Your task to perform on an android device: turn off notifications in google photos Image 0: 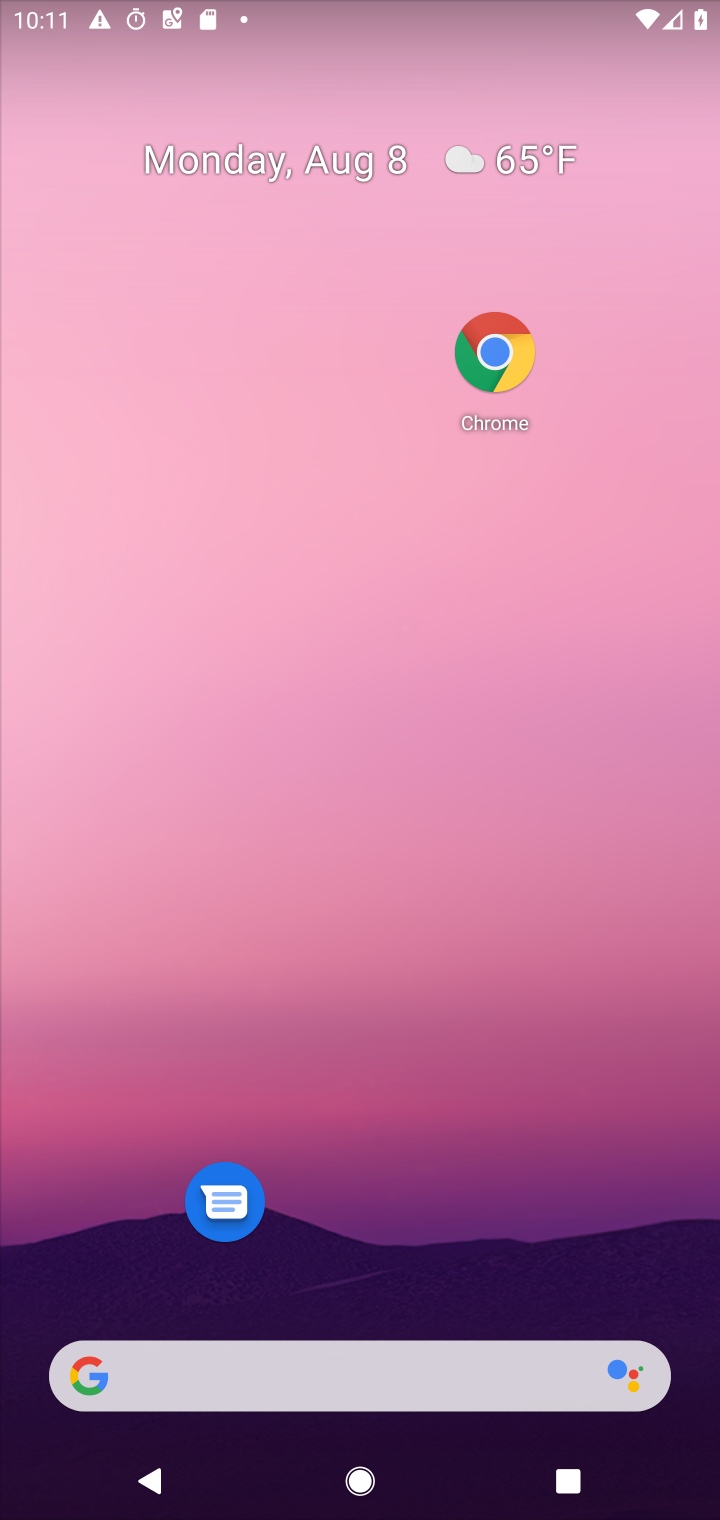
Step 0: drag from (357, 1254) to (718, 966)
Your task to perform on an android device: turn off notifications in google photos Image 1: 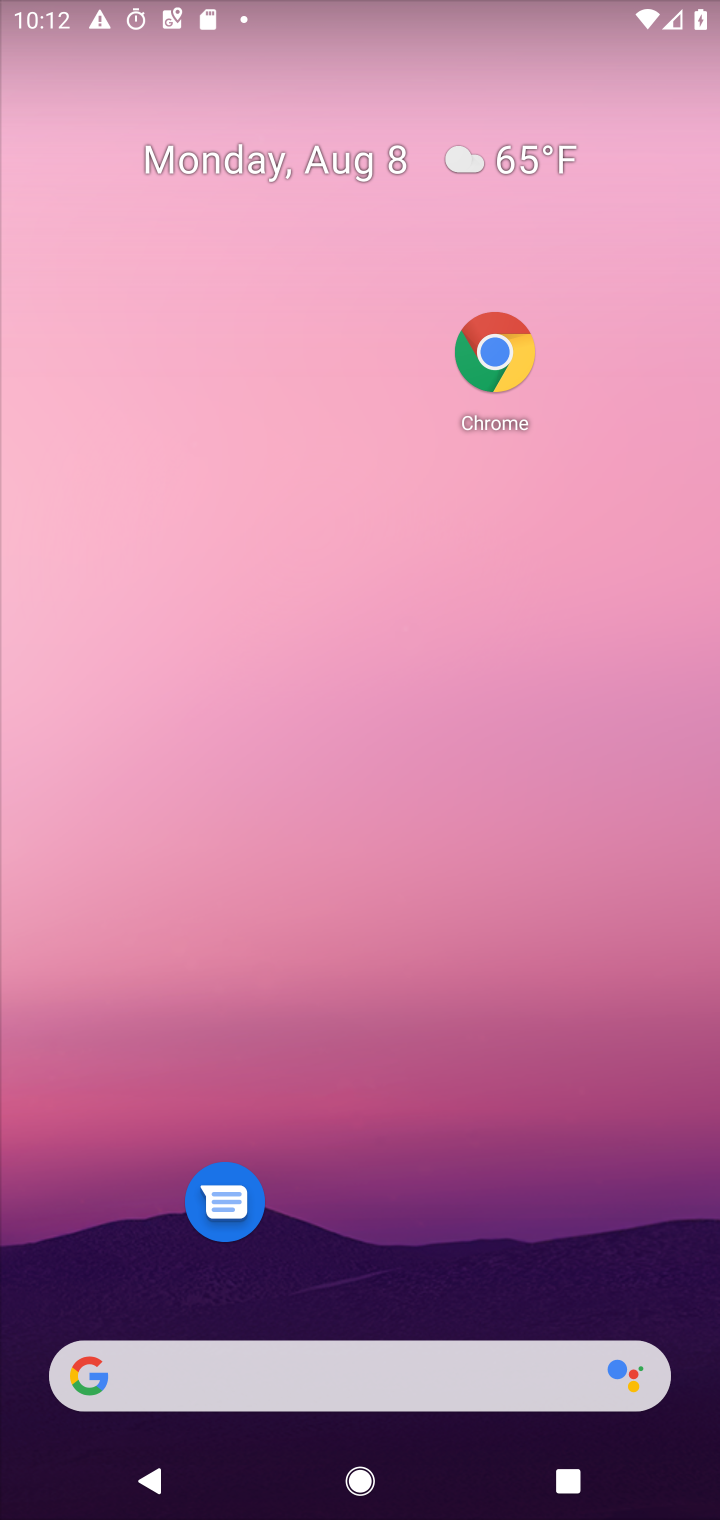
Step 1: click (493, 1191)
Your task to perform on an android device: turn off notifications in google photos Image 2: 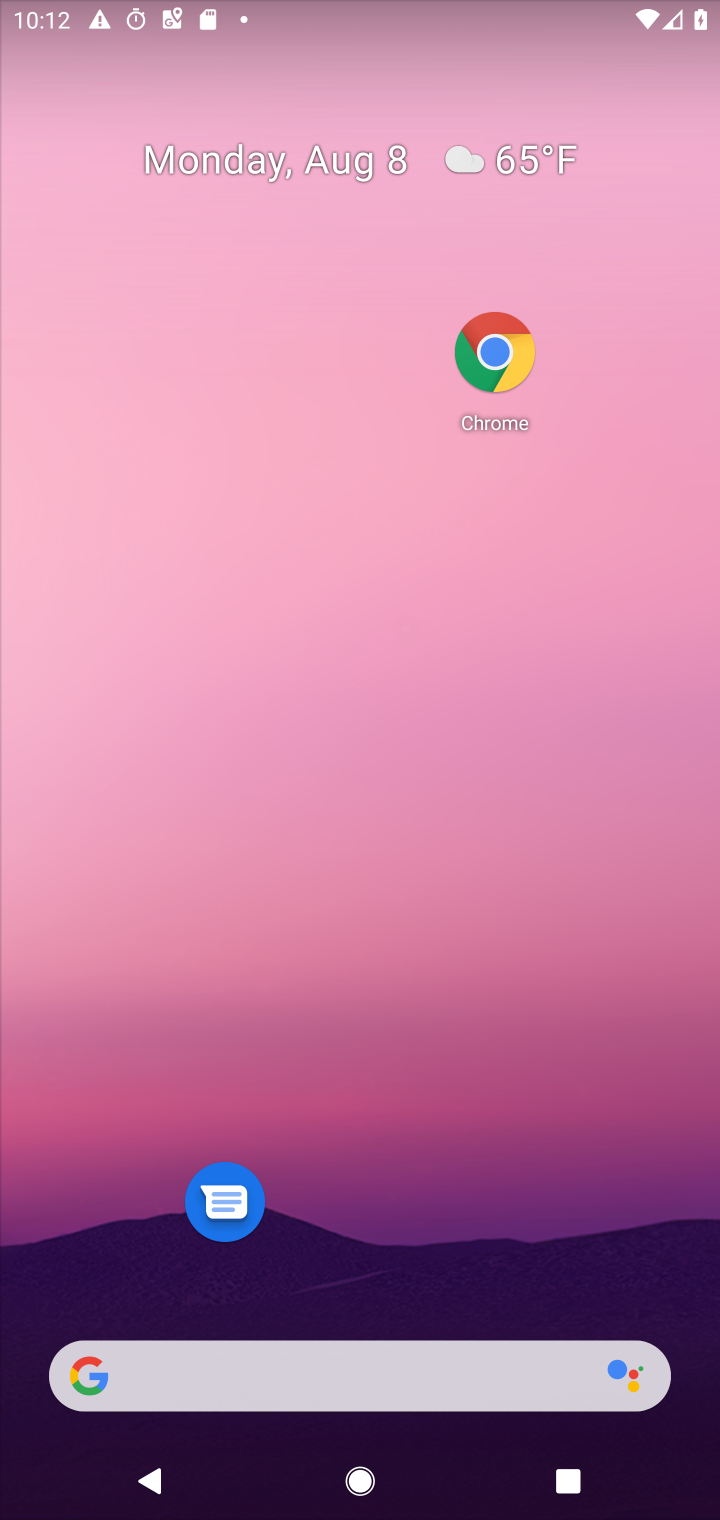
Step 2: drag from (449, 1366) to (598, 324)
Your task to perform on an android device: turn off notifications in google photos Image 3: 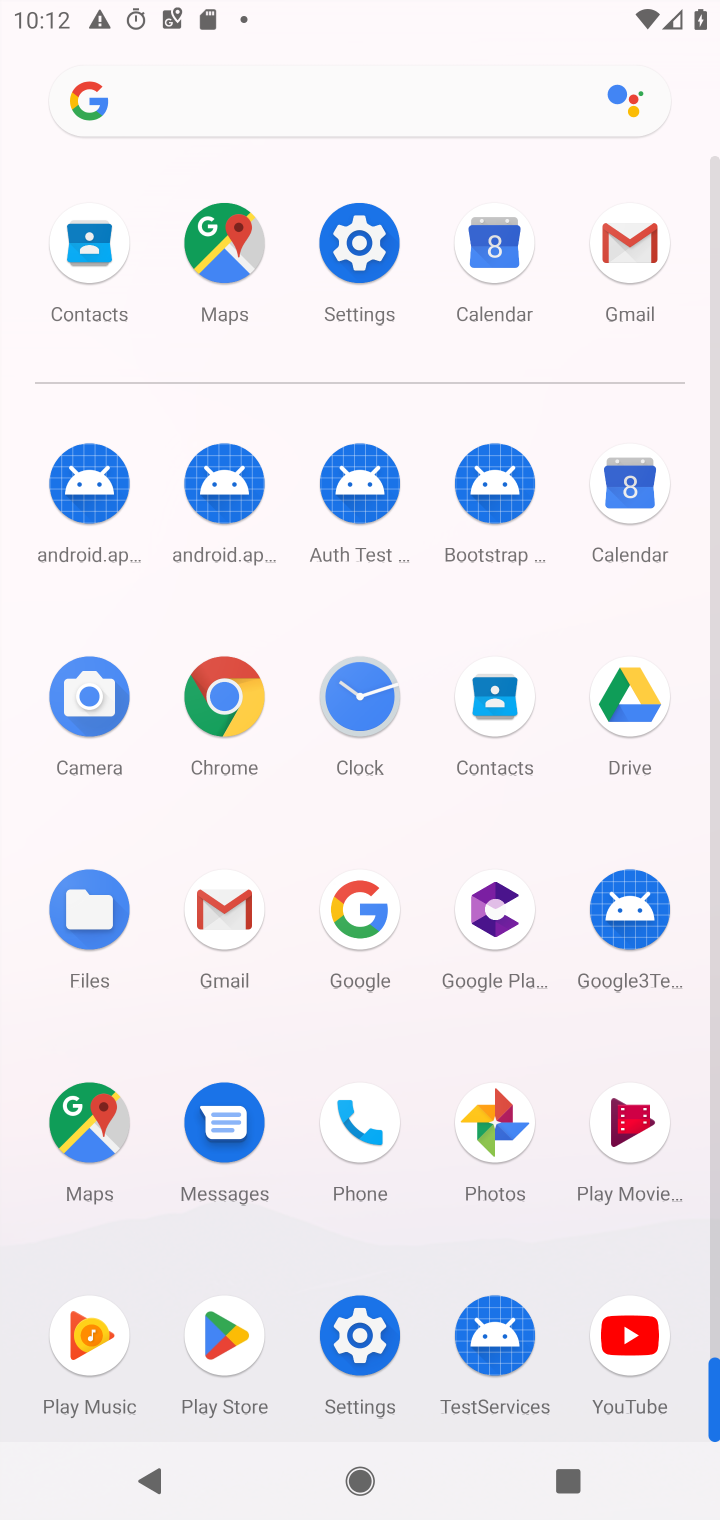
Step 3: click (471, 1139)
Your task to perform on an android device: turn off notifications in google photos Image 4: 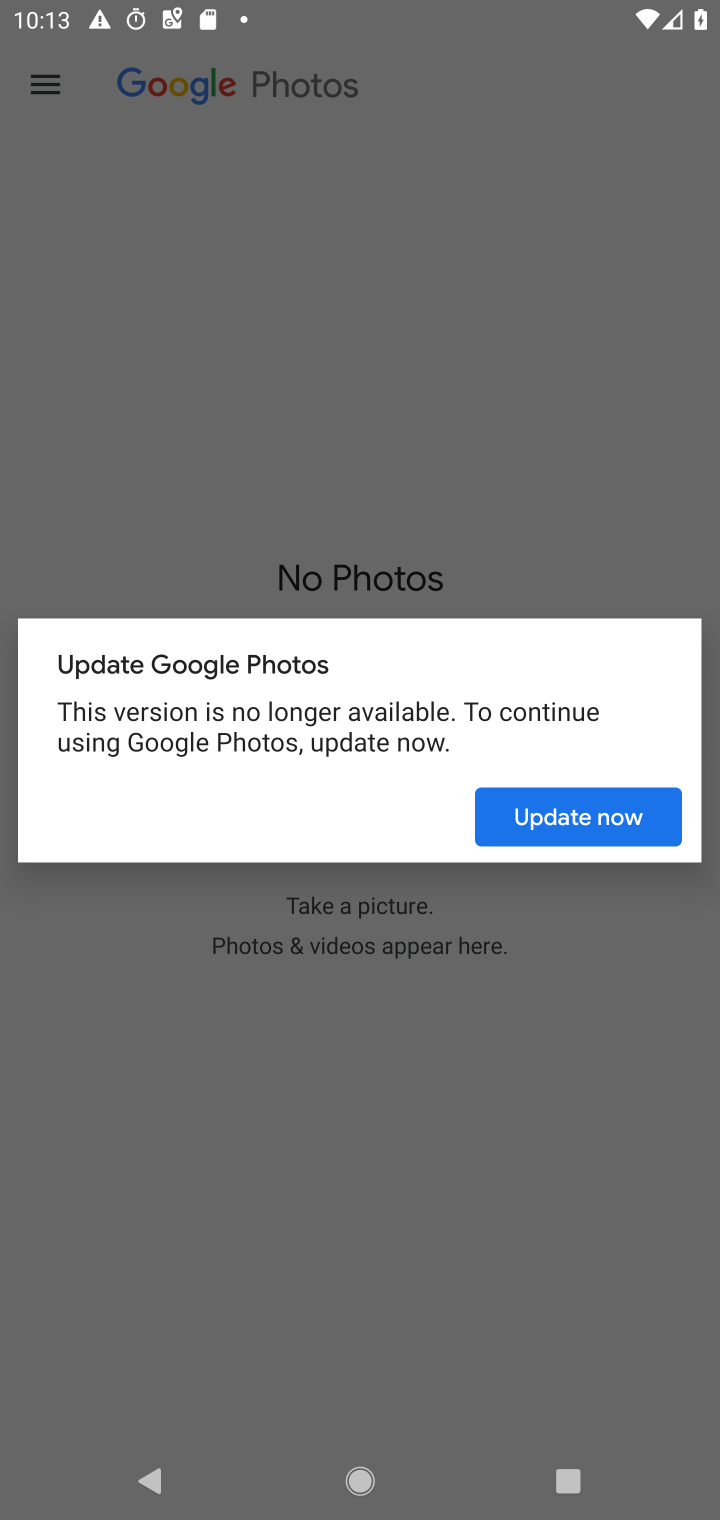
Step 4: task complete